Your task to perform on an android device: Check the weather Image 0: 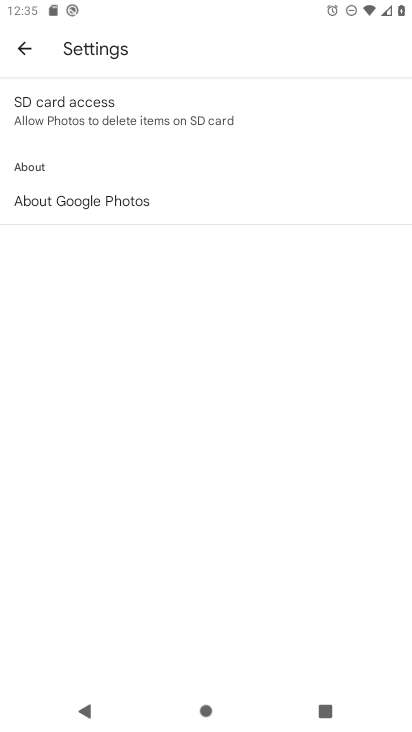
Step 0: press home button
Your task to perform on an android device: Check the weather Image 1: 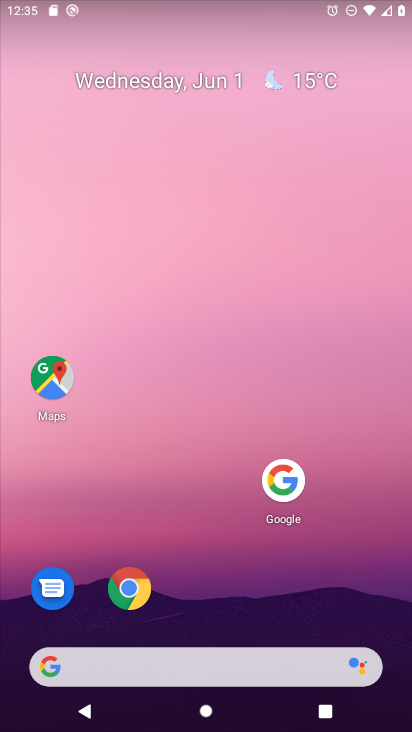
Step 1: click (292, 86)
Your task to perform on an android device: Check the weather Image 2: 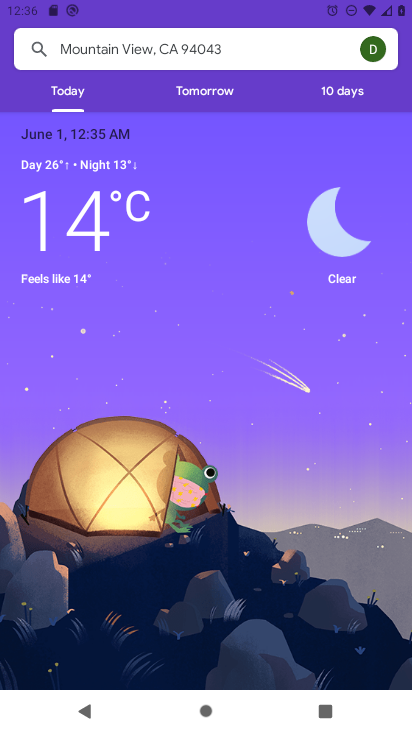
Step 2: task complete